Your task to perform on an android device: turn vacation reply on in the gmail app Image 0: 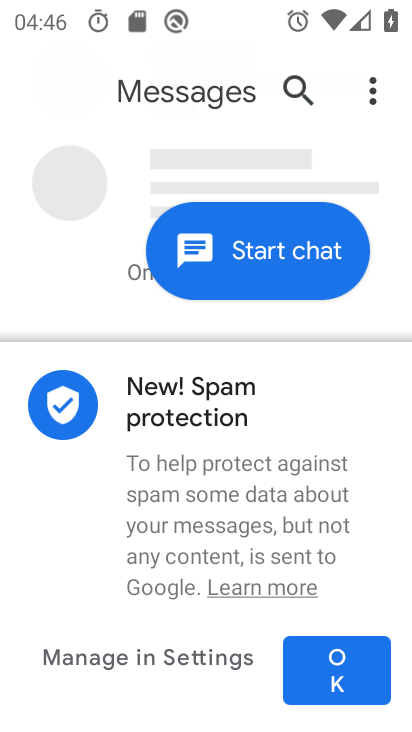
Step 0: press back button
Your task to perform on an android device: turn vacation reply on in the gmail app Image 1: 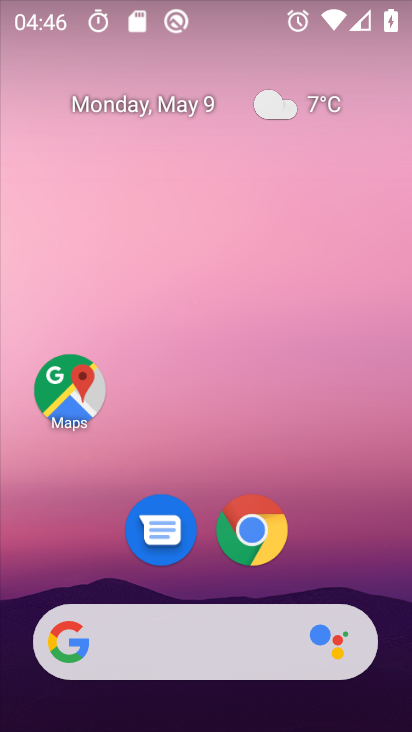
Step 1: drag from (194, 584) to (292, 49)
Your task to perform on an android device: turn vacation reply on in the gmail app Image 2: 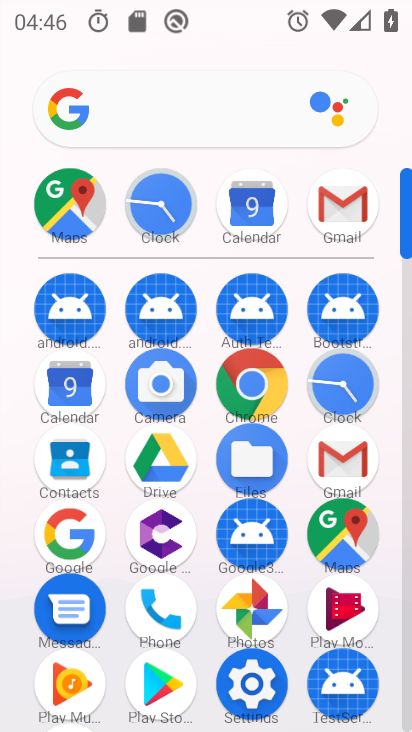
Step 2: click (339, 205)
Your task to perform on an android device: turn vacation reply on in the gmail app Image 3: 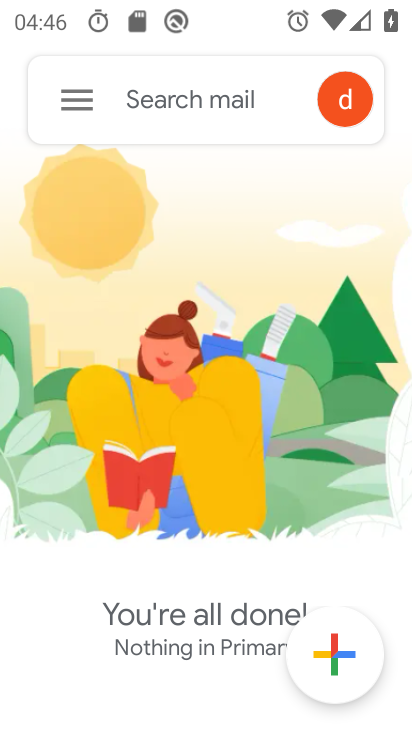
Step 3: click (68, 102)
Your task to perform on an android device: turn vacation reply on in the gmail app Image 4: 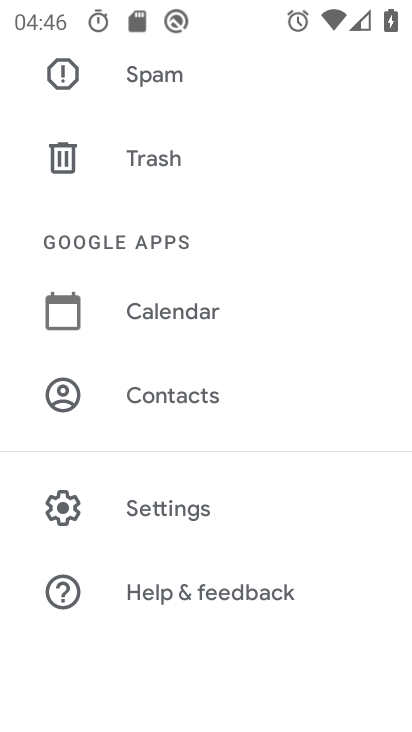
Step 4: click (156, 504)
Your task to perform on an android device: turn vacation reply on in the gmail app Image 5: 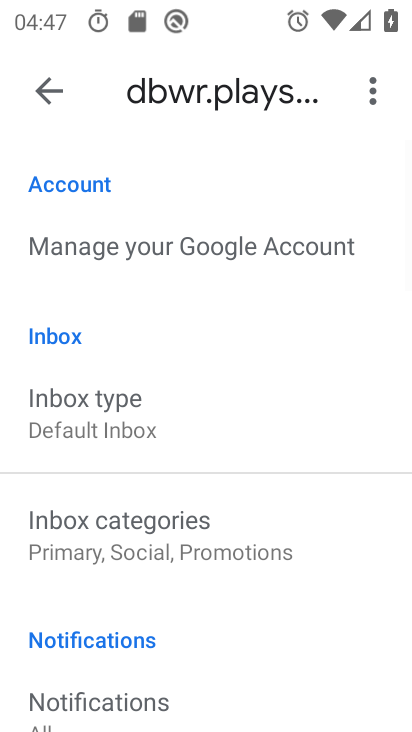
Step 5: drag from (136, 664) to (257, 93)
Your task to perform on an android device: turn vacation reply on in the gmail app Image 6: 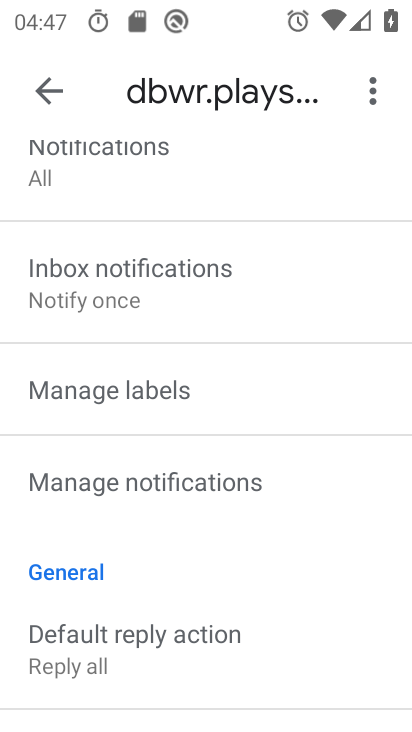
Step 6: drag from (147, 677) to (195, 158)
Your task to perform on an android device: turn vacation reply on in the gmail app Image 7: 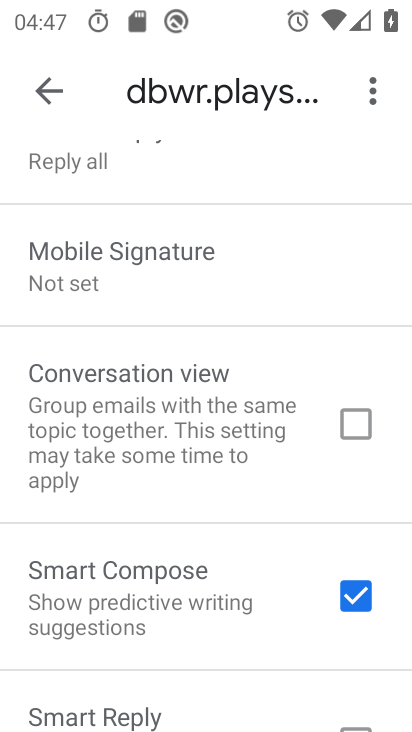
Step 7: drag from (206, 689) to (260, 300)
Your task to perform on an android device: turn vacation reply on in the gmail app Image 8: 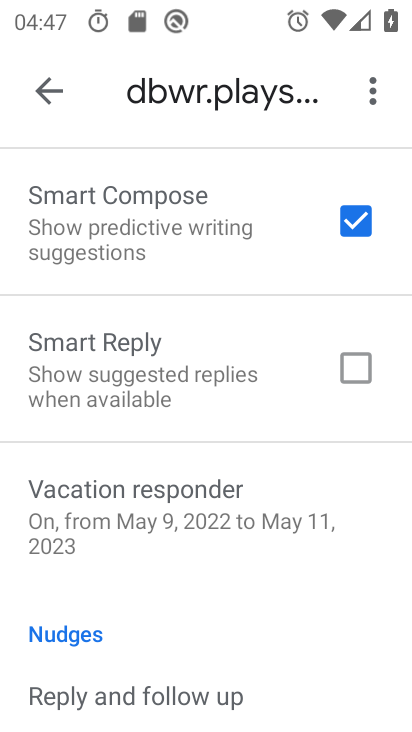
Step 8: click (142, 487)
Your task to perform on an android device: turn vacation reply on in the gmail app Image 9: 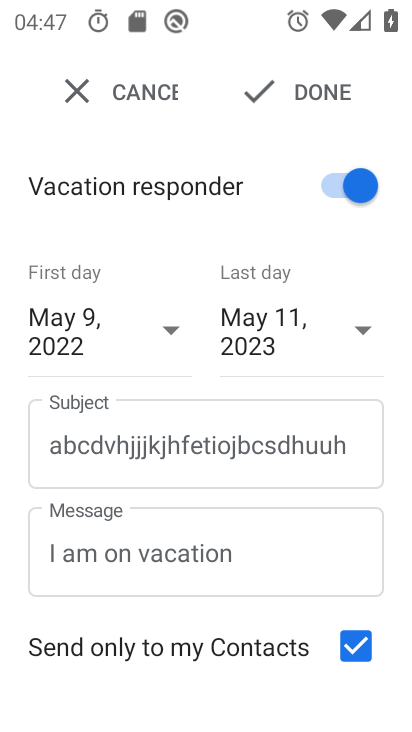
Step 9: task complete